Your task to perform on an android device: Show me popular games on the Play Store Image 0: 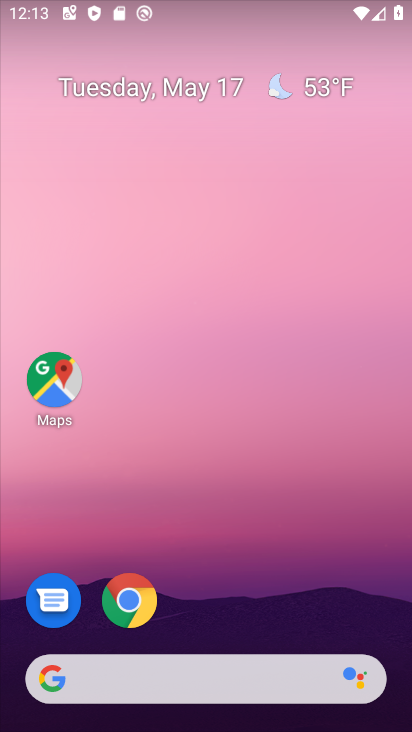
Step 0: drag from (235, 607) to (269, 22)
Your task to perform on an android device: Show me popular games on the Play Store Image 1: 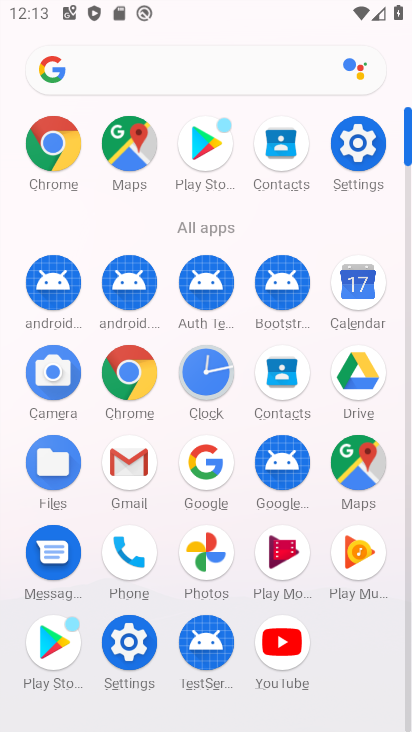
Step 1: click (62, 644)
Your task to perform on an android device: Show me popular games on the Play Store Image 2: 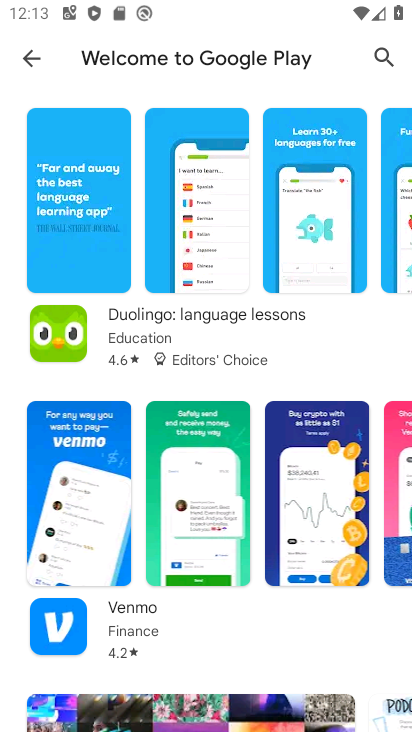
Step 2: task complete